Your task to perform on an android device: Go to privacy settings Image 0: 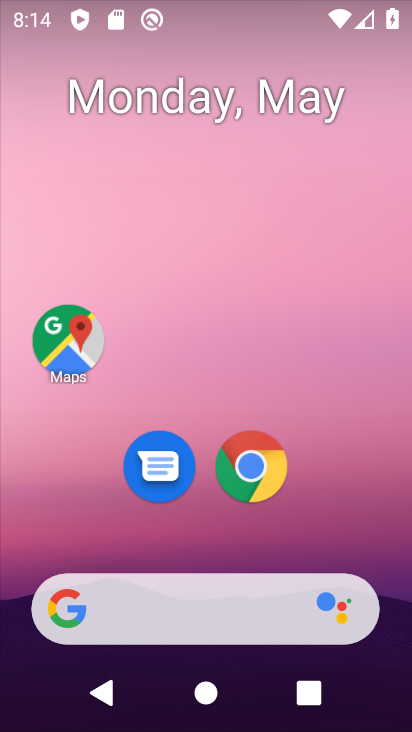
Step 0: press home button
Your task to perform on an android device: Go to privacy settings Image 1: 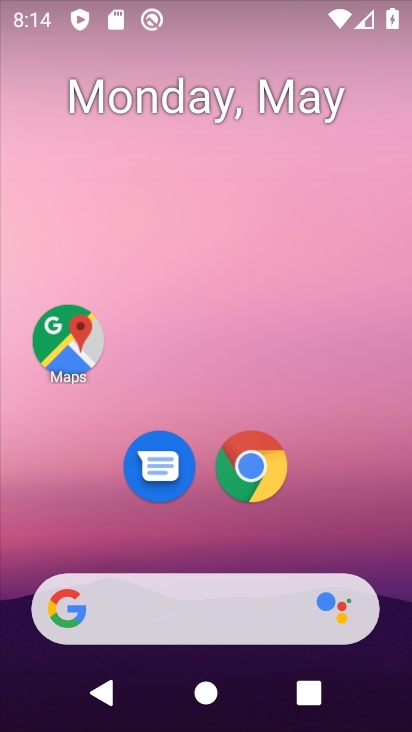
Step 1: drag from (271, 638) to (389, 3)
Your task to perform on an android device: Go to privacy settings Image 2: 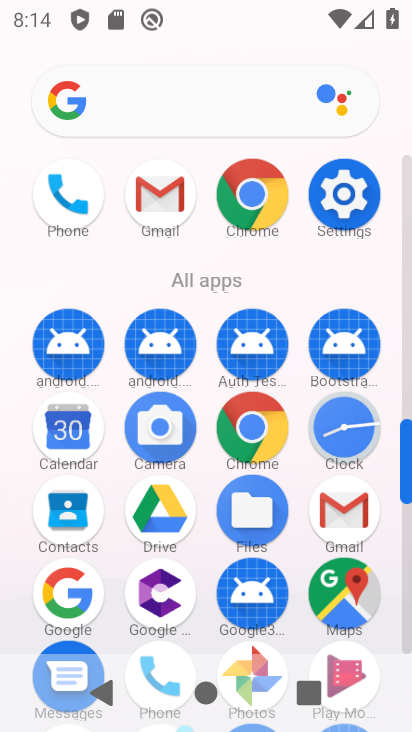
Step 2: click (346, 186)
Your task to perform on an android device: Go to privacy settings Image 3: 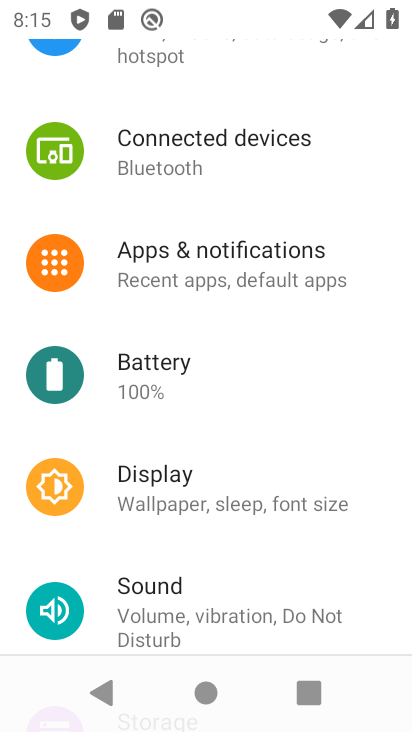
Step 3: drag from (179, 544) to (203, 174)
Your task to perform on an android device: Go to privacy settings Image 4: 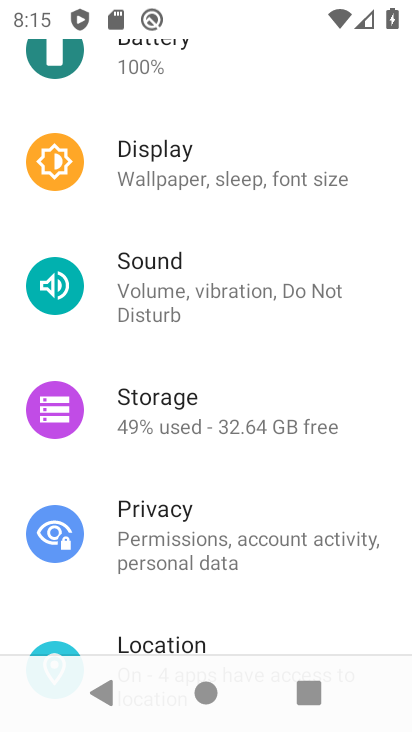
Step 4: click (156, 514)
Your task to perform on an android device: Go to privacy settings Image 5: 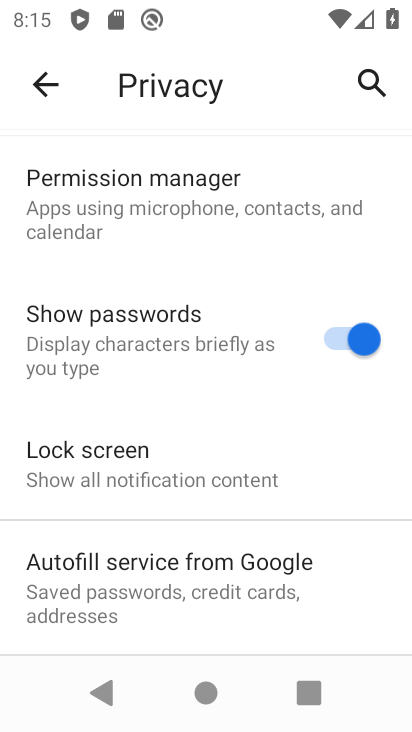
Step 5: task complete